Your task to perform on an android device: What is the recent news? Image 0: 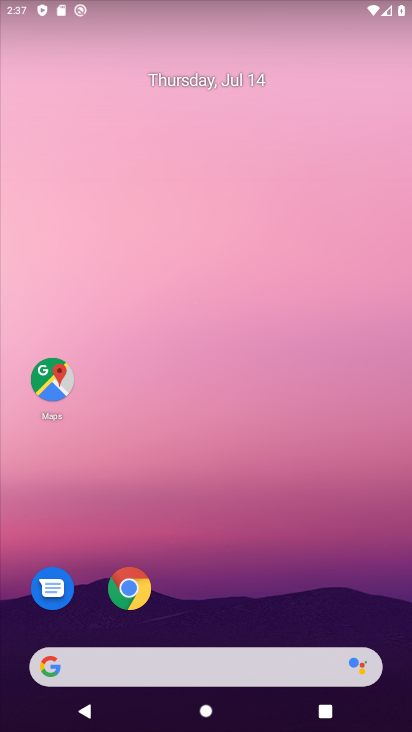
Step 0: click (183, 659)
Your task to perform on an android device: What is the recent news? Image 1: 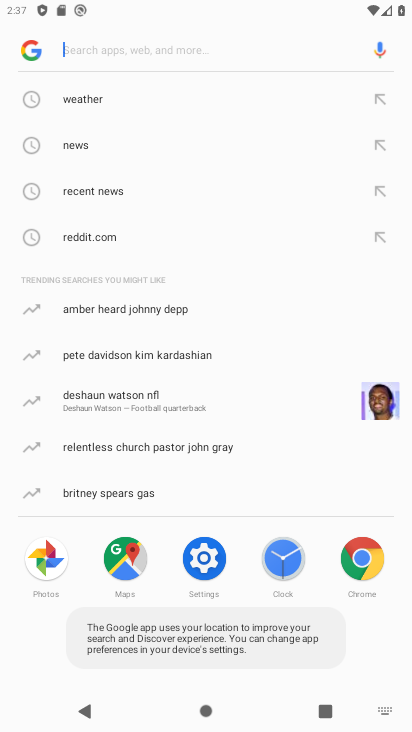
Step 1: click (93, 150)
Your task to perform on an android device: What is the recent news? Image 2: 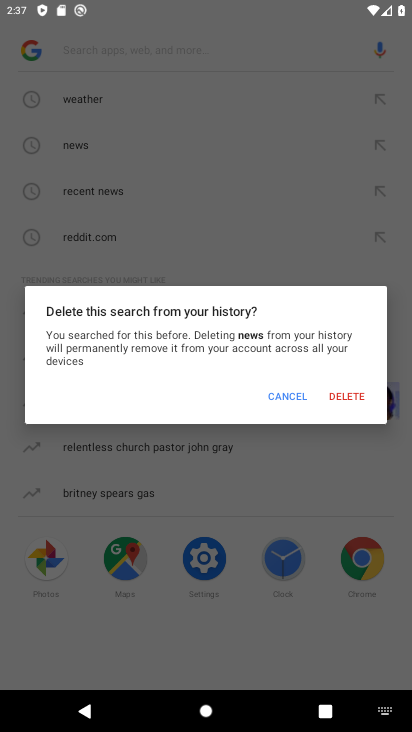
Step 2: click (281, 386)
Your task to perform on an android device: What is the recent news? Image 3: 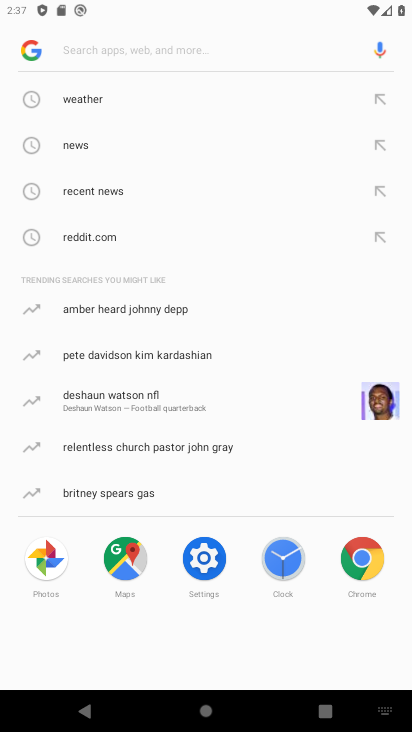
Step 3: click (93, 148)
Your task to perform on an android device: What is the recent news? Image 4: 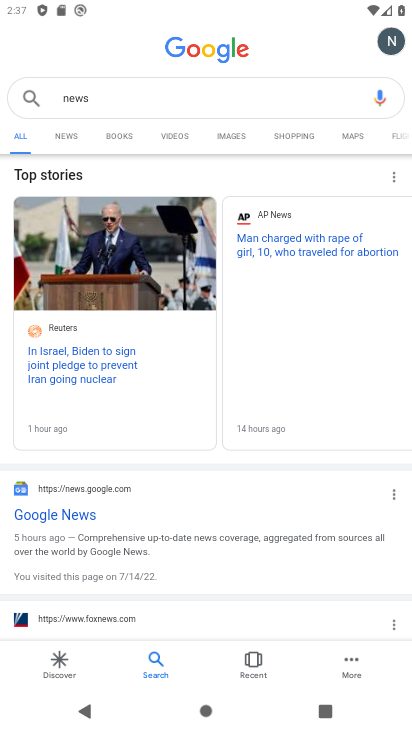
Step 4: click (71, 132)
Your task to perform on an android device: What is the recent news? Image 5: 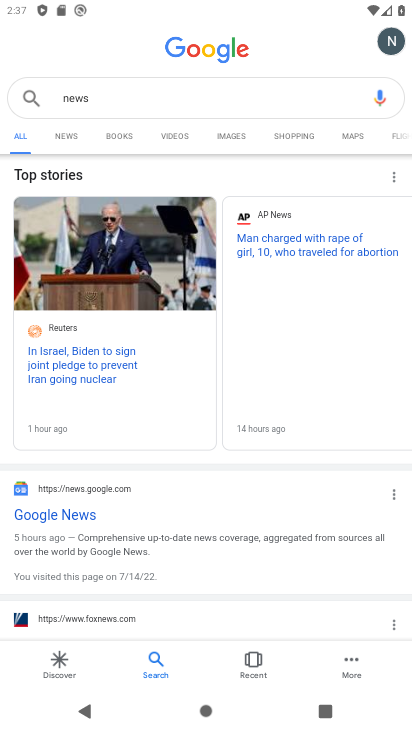
Step 5: task complete